Your task to perform on an android device: check android version Image 0: 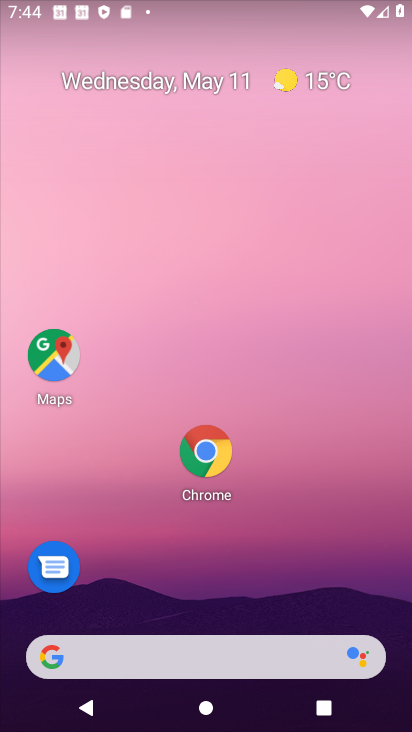
Step 0: press home button
Your task to perform on an android device: check android version Image 1: 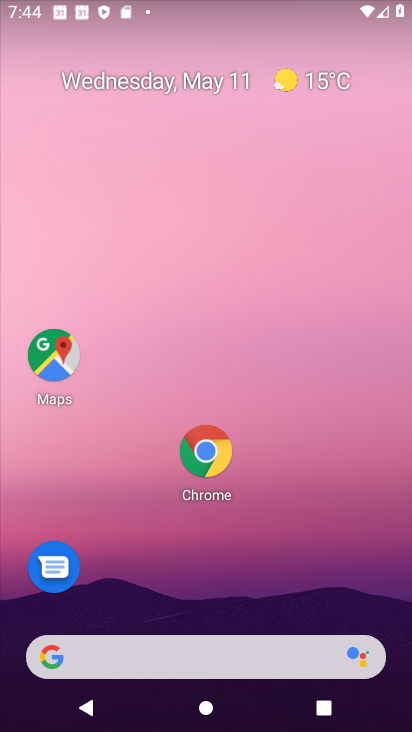
Step 1: drag from (163, 660) to (318, 163)
Your task to perform on an android device: check android version Image 2: 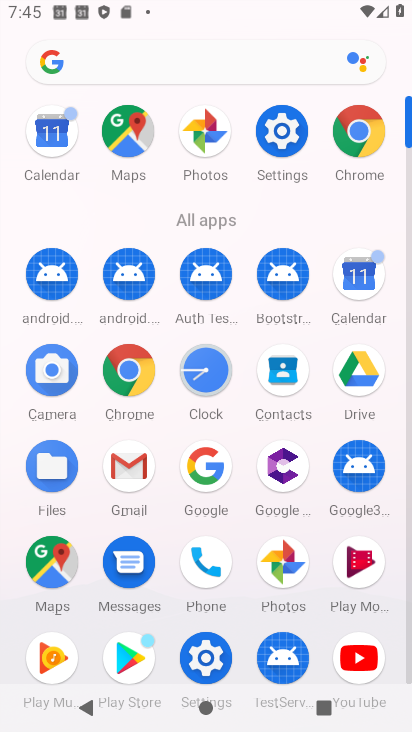
Step 2: click (274, 146)
Your task to perform on an android device: check android version Image 3: 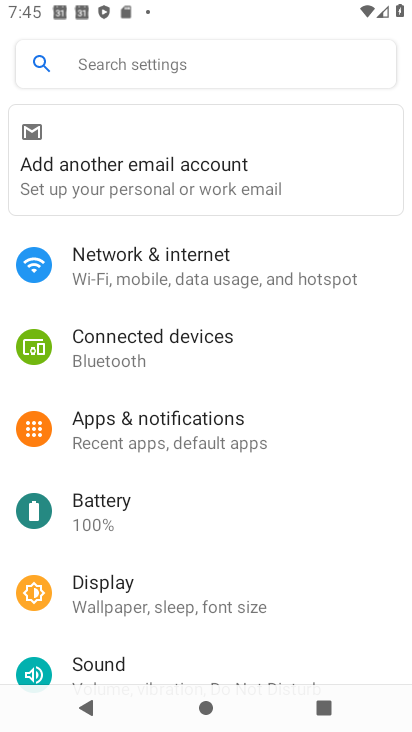
Step 3: drag from (218, 646) to (357, 101)
Your task to perform on an android device: check android version Image 4: 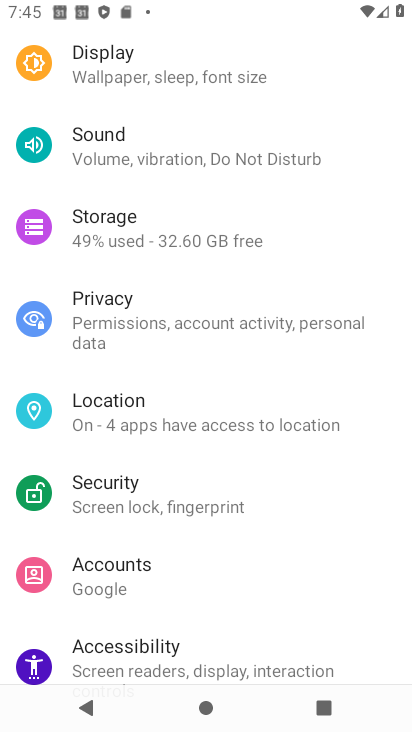
Step 4: drag from (211, 550) to (342, 62)
Your task to perform on an android device: check android version Image 5: 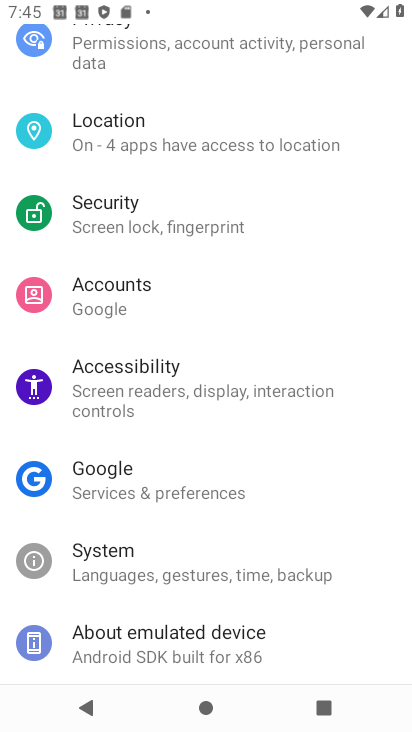
Step 5: click (170, 630)
Your task to perform on an android device: check android version Image 6: 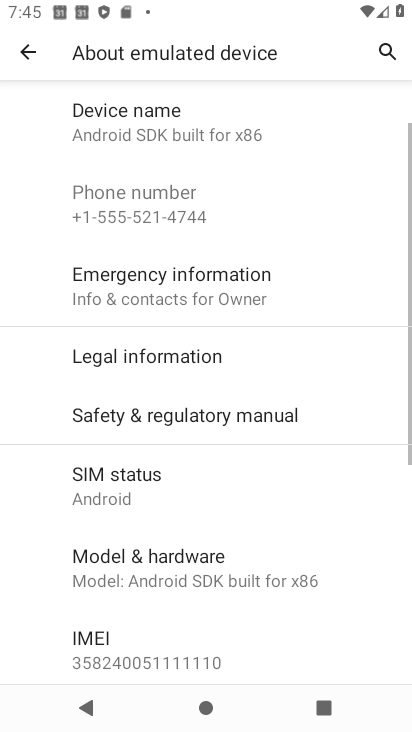
Step 6: drag from (191, 605) to (346, 174)
Your task to perform on an android device: check android version Image 7: 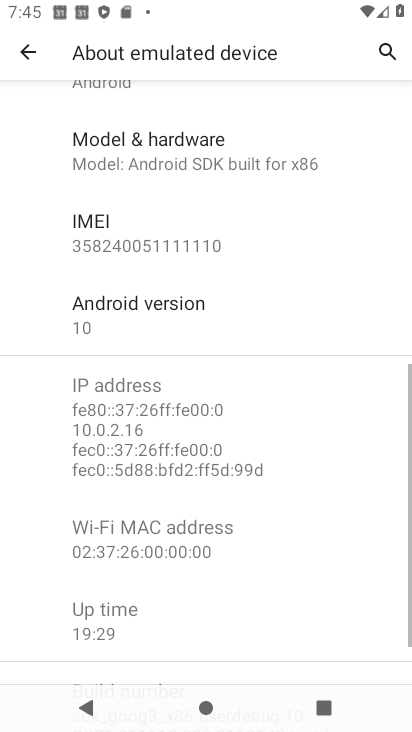
Step 7: click (157, 300)
Your task to perform on an android device: check android version Image 8: 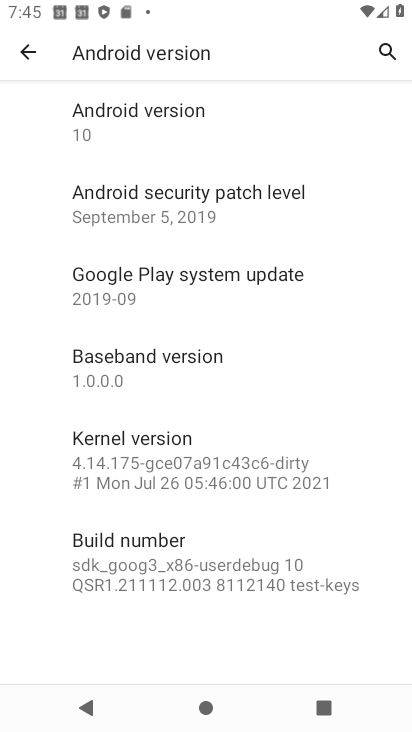
Step 8: task complete